Your task to perform on an android device: uninstall "Flipkart Online Shopping App" Image 0: 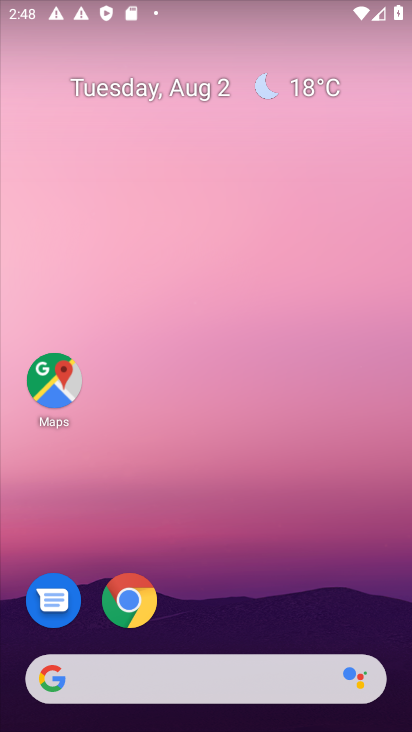
Step 0: drag from (204, 481) to (225, 14)
Your task to perform on an android device: uninstall "Flipkart Online Shopping App" Image 1: 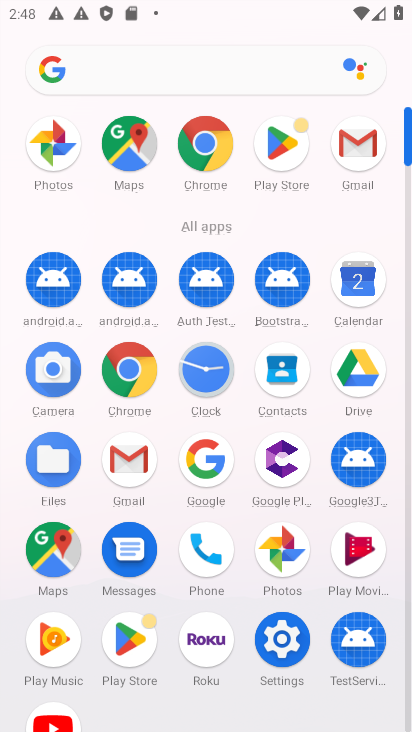
Step 1: click (296, 146)
Your task to perform on an android device: uninstall "Flipkart Online Shopping App" Image 2: 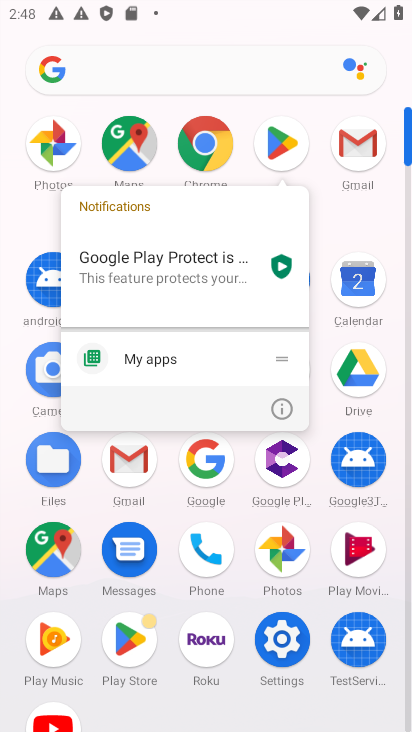
Step 2: click (277, 151)
Your task to perform on an android device: uninstall "Flipkart Online Shopping App" Image 3: 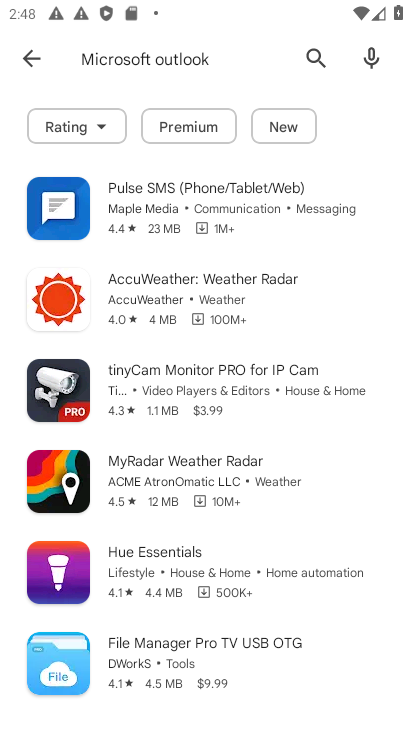
Step 3: click (326, 53)
Your task to perform on an android device: uninstall "Flipkart Online Shopping App" Image 4: 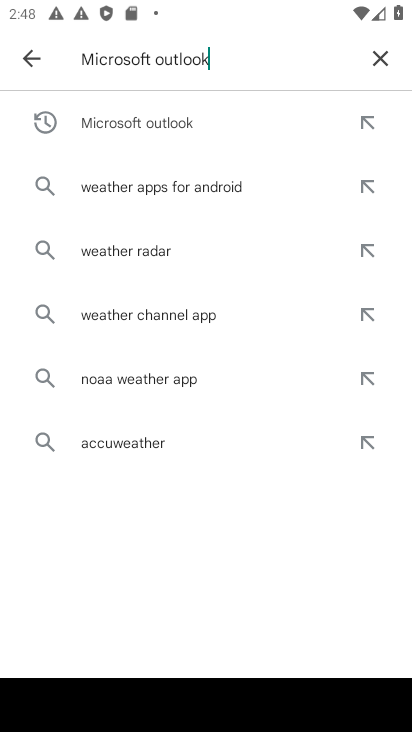
Step 4: click (387, 54)
Your task to perform on an android device: uninstall "Flipkart Online Shopping App" Image 5: 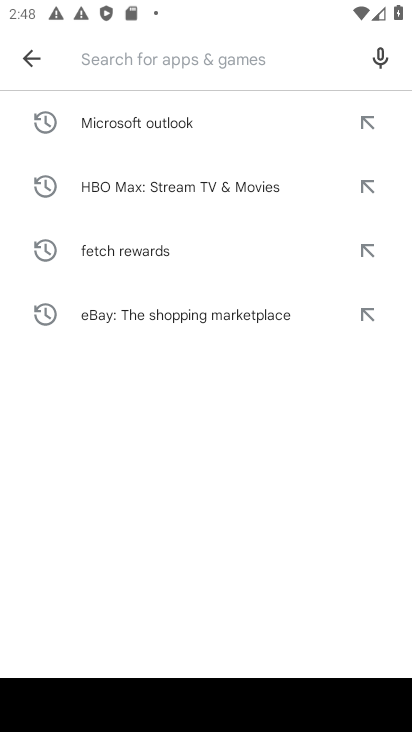
Step 5: type "flipkart"
Your task to perform on an android device: uninstall "Flipkart Online Shopping App" Image 6: 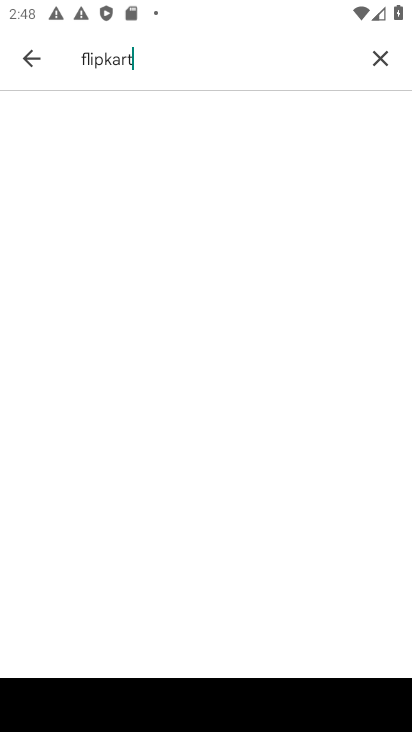
Step 6: press enter
Your task to perform on an android device: uninstall "Flipkart Online Shopping App" Image 7: 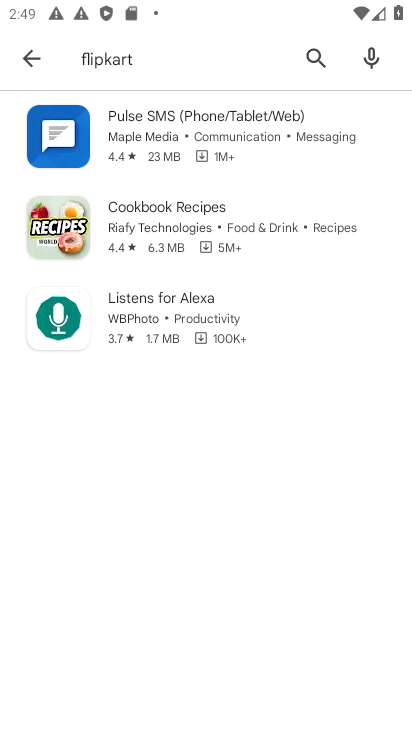
Step 7: task complete